Your task to perform on an android device: open sync settings in chrome Image 0: 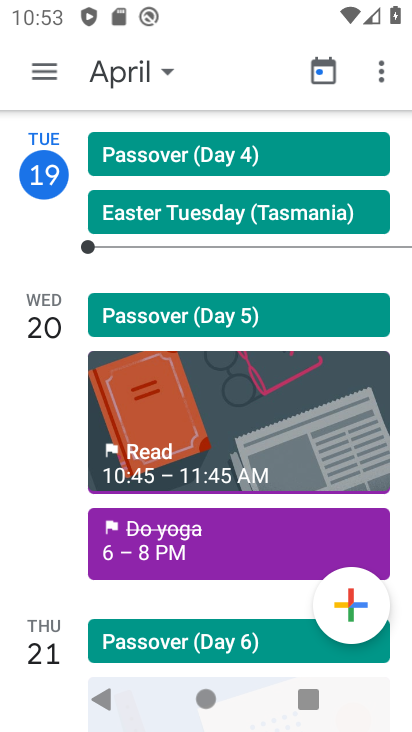
Step 0: press home button
Your task to perform on an android device: open sync settings in chrome Image 1: 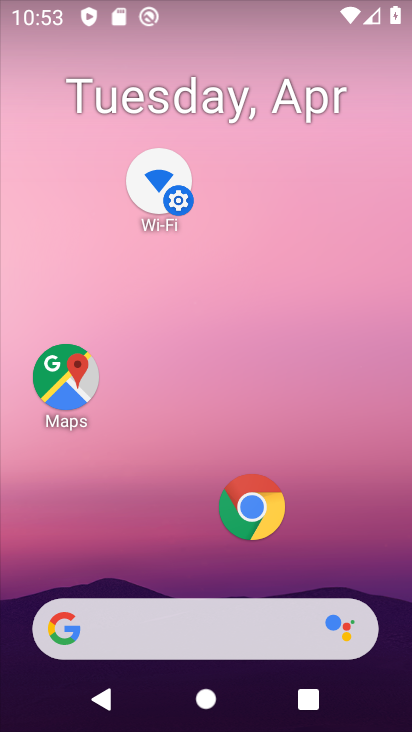
Step 1: click (250, 519)
Your task to perform on an android device: open sync settings in chrome Image 2: 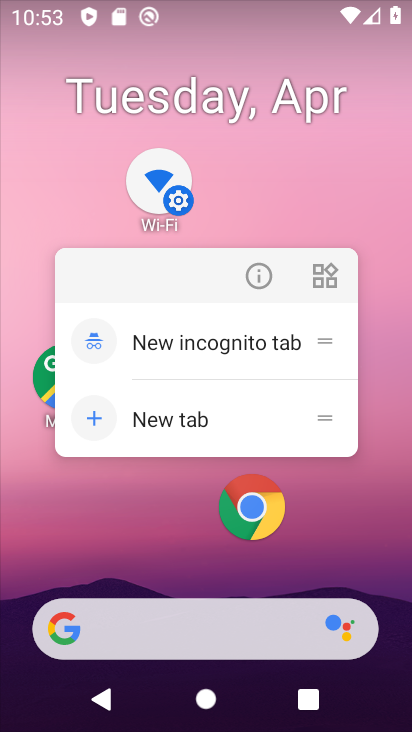
Step 2: click (264, 509)
Your task to perform on an android device: open sync settings in chrome Image 3: 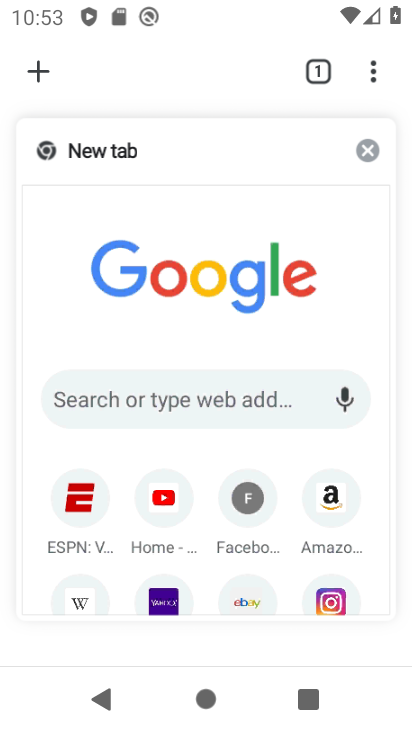
Step 3: click (255, 498)
Your task to perform on an android device: open sync settings in chrome Image 4: 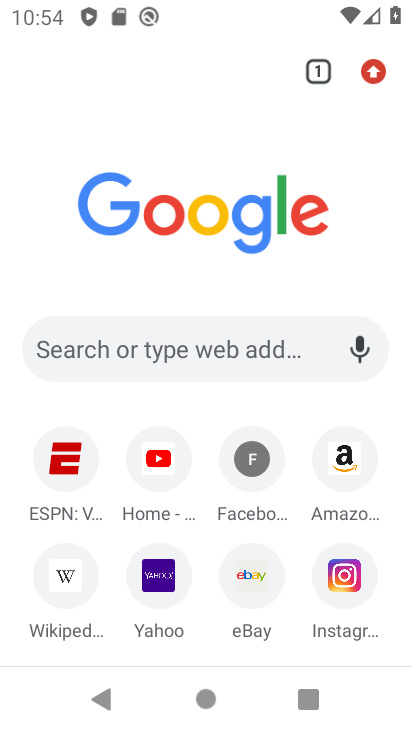
Step 4: click (323, 76)
Your task to perform on an android device: open sync settings in chrome Image 5: 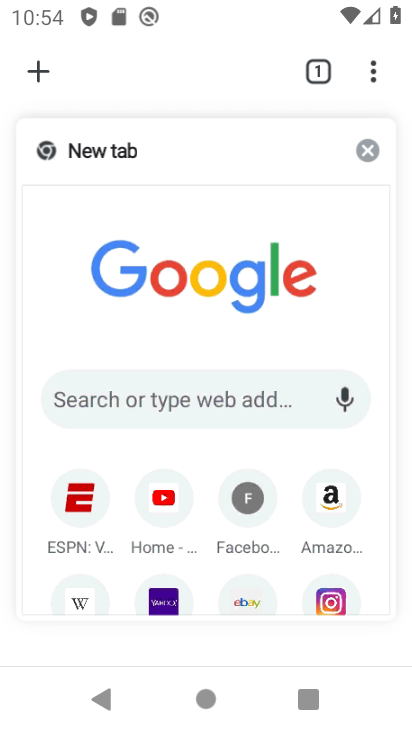
Step 5: click (375, 151)
Your task to perform on an android device: open sync settings in chrome Image 6: 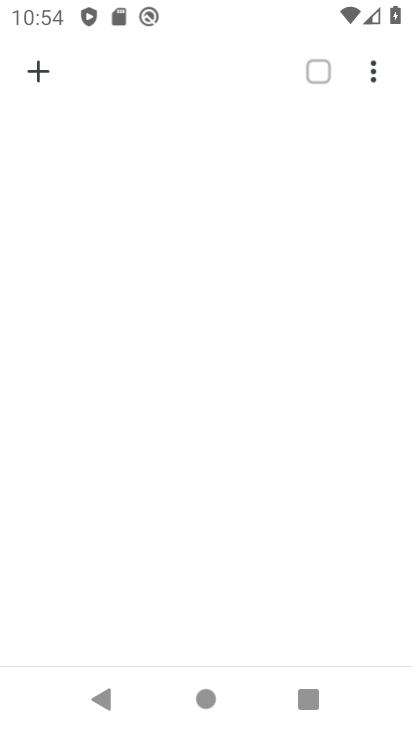
Step 6: click (41, 59)
Your task to perform on an android device: open sync settings in chrome Image 7: 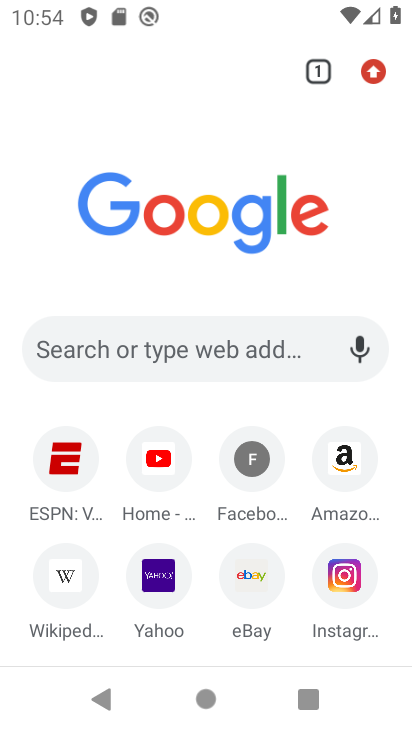
Step 7: click (361, 160)
Your task to perform on an android device: open sync settings in chrome Image 8: 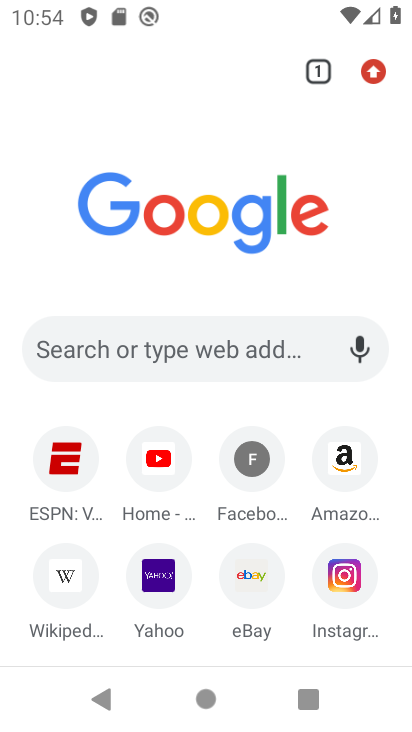
Step 8: click (312, 69)
Your task to perform on an android device: open sync settings in chrome Image 9: 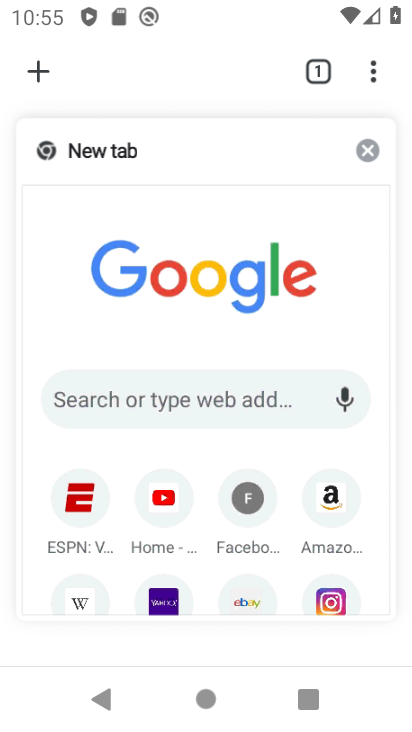
Step 9: click (377, 71)
Your task to perform on an android device: open sync settings in chrome Image 10: 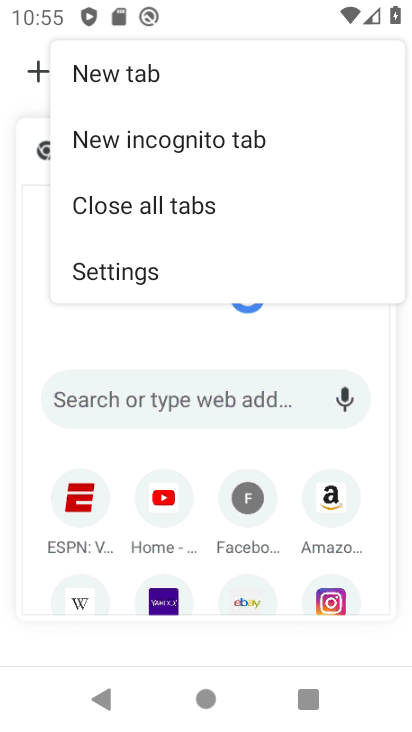
Step 10: click (172, 258)
Your task to perform on an android device: open sync settings in chrome Image 11: 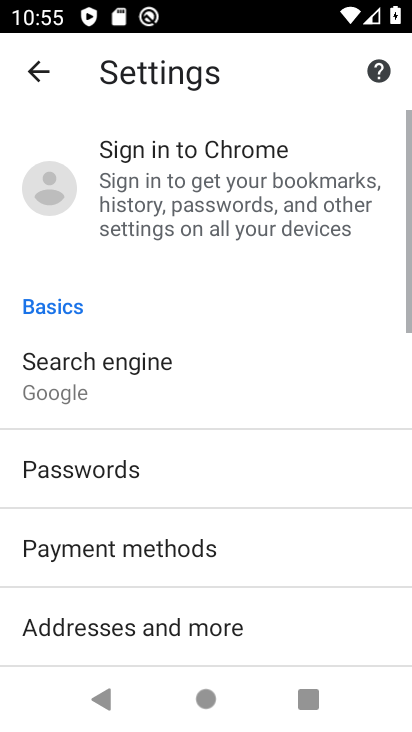
Step 11: drag from (145, 623) to (247, 272)
Your task to perform on an android device: open sync settings in chrome Image 12: 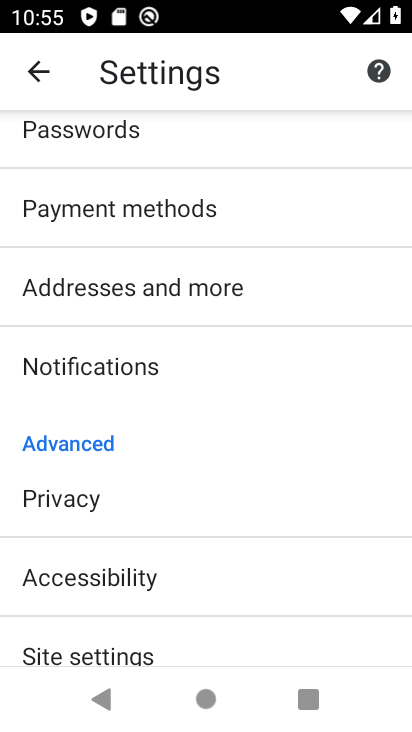
Step 12: drag from (121, 627) to (234, 260)
Your task to perform on an android device: open sync settings in chrome Image 13: 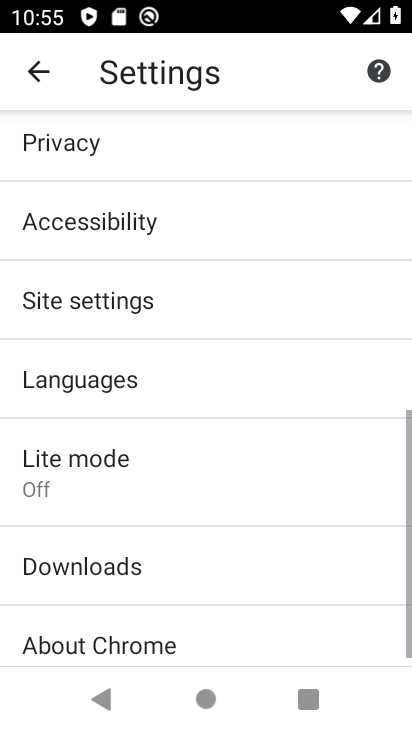
Step 13: drag from (124, 525) to (210, 267)
Your task to perform on an android device: open sync settings in chrome Image 14: 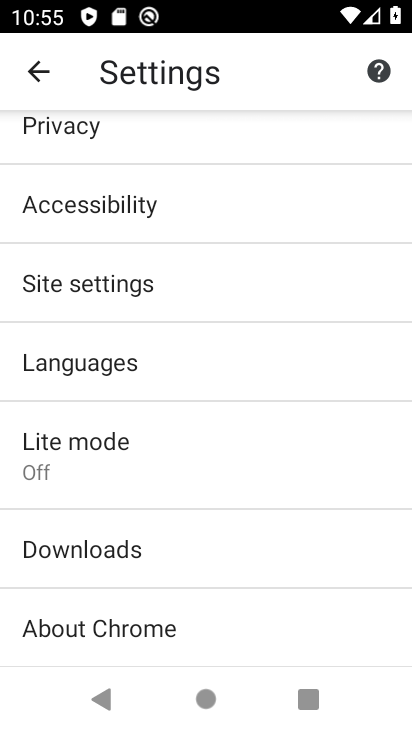
Step 14: drag from (186, 174) to (127, 607)
Your task to perform on an android device: open sync settings in chrome Image 15: 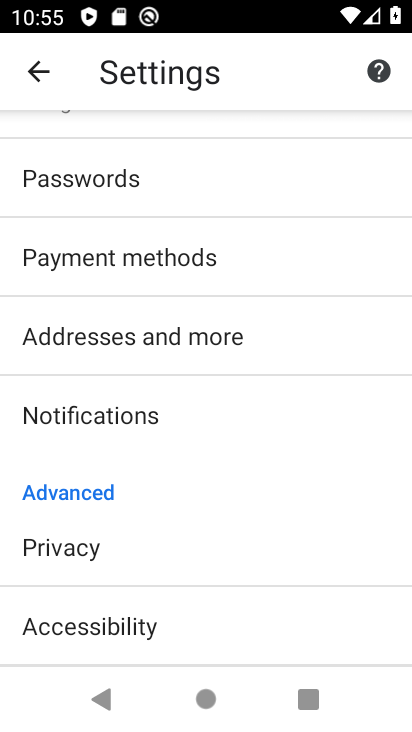
Step 15: drag from (52, 623) to (129, 358)
Your task to perform on an android device: open sync settings in chrome Image 16: 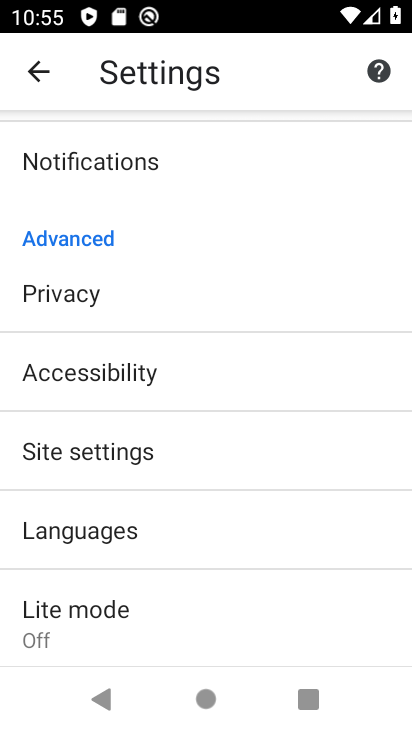
Step 16: click (86, 448)
Your task to perform on an android device: open sync settings in chrome Image 17: 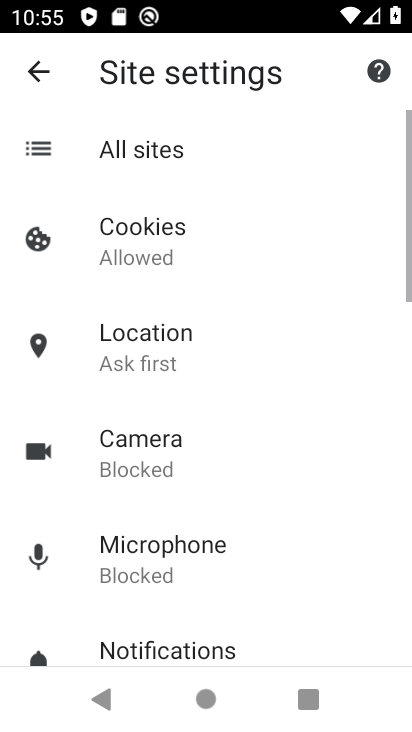
Step 17: drag from (123, 582) to (201, 304)
Your task to perform on an android device: open sync settings in chrome Image 18: 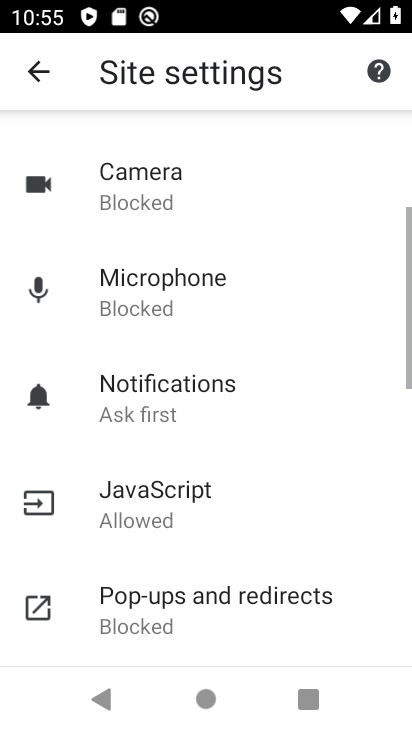
Step 18: drag from (151, 558) to (236, 204)
Your task to perform on an android device: open sync settings in chrome Image 19: 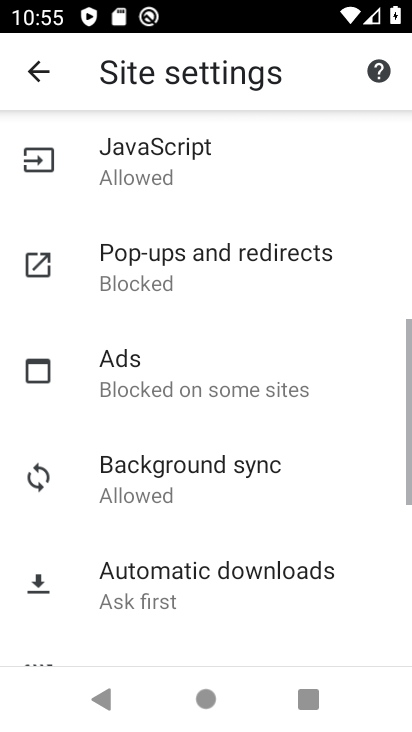
Step 19: click (155, 487)
Your task to perform on an android device: open sync settings in chrome Image 20: 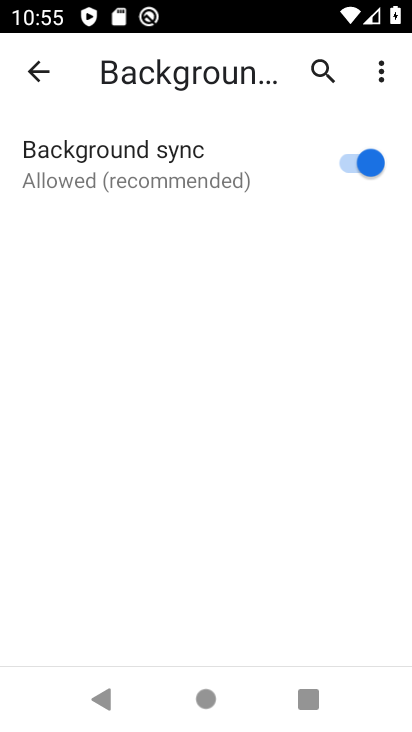
Step 20: task complete